Your task to perform on an android device: move a message to another label in the gmail app Image 0: 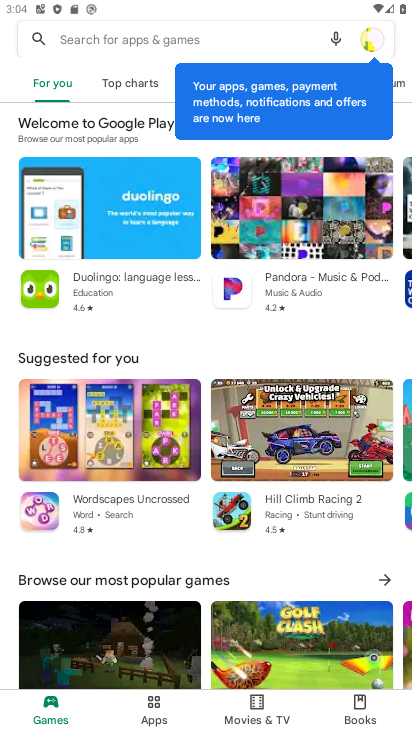
Step 0: press home button
Your task to perform on an android device: move a message to another label in the gmail app Image 1: 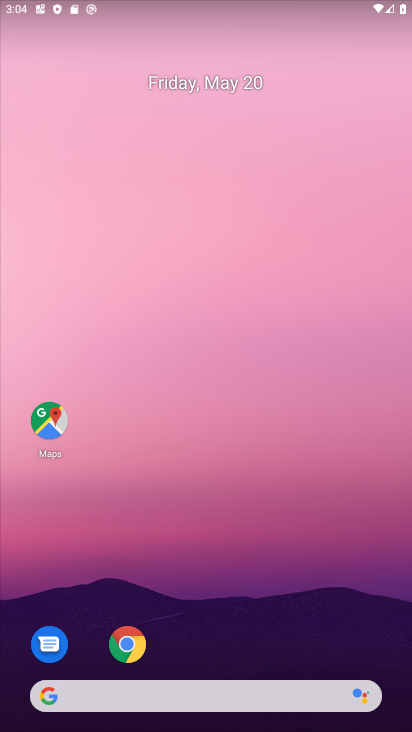
Step 1: drag from (335, 567) to (199, 66)
Your task to perform on an android device: move a message to another label in the gmail app Image 2: 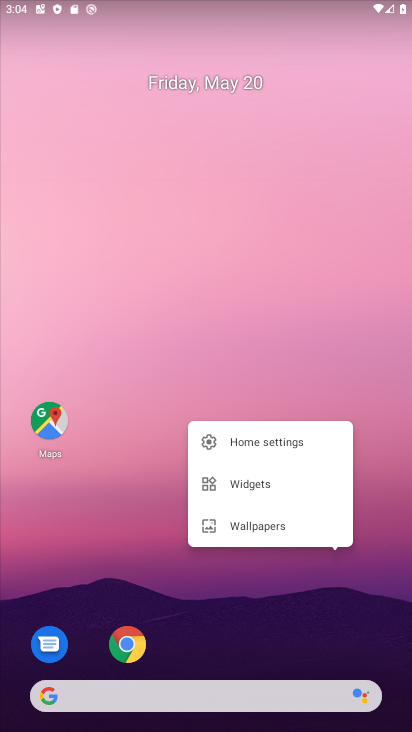
Step 2: click (94, 421)
Your task to perform on an android device: move a message to another label in the gmail app Image 3: 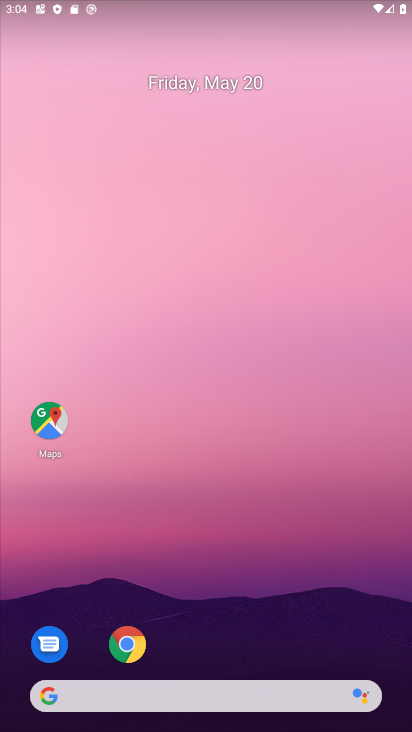
Step 3: drag from (191, 582) to (219, 15)
Your task to perform on an android device: move a message to another label in the gmail app Image 4: 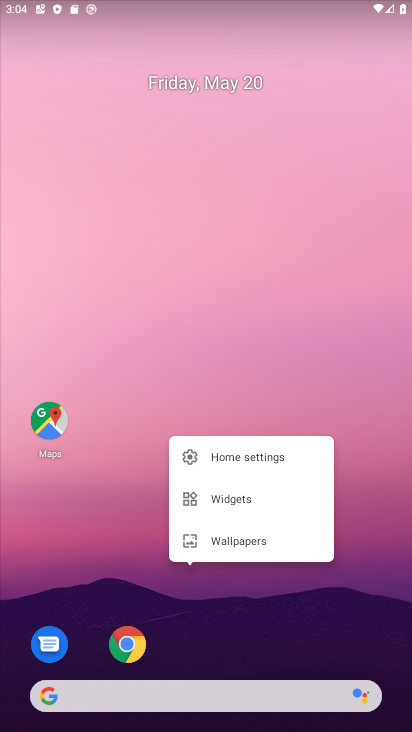
Step 4: click (222, 583)
Your task to perform on an android device: move a message to another label in the gmail app Image 5: 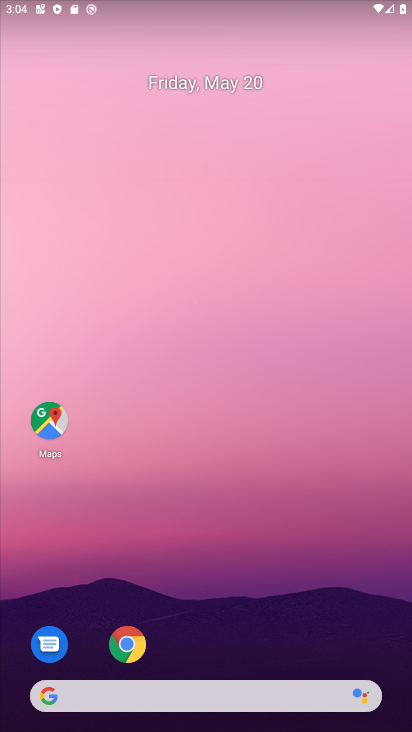
Step 5: drag from (222, 583) to (119, 57)
Your task to perform on an android device: move a message to another label in the gmail app Image 6: 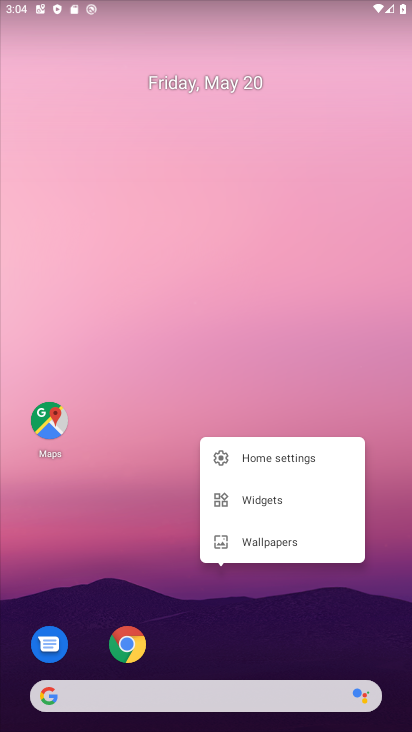
Step 6: click (142, 548)
Your task to perform on an android device: move a message to another label in the gmail app Image 7: 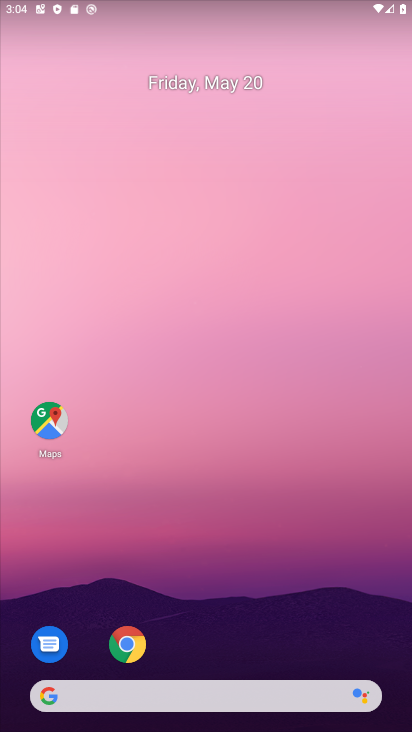
Step 7: drag from (142, 548) to (150, 160)
Your task to perform on an android device: move a message to another label in the gmail app Image 8: 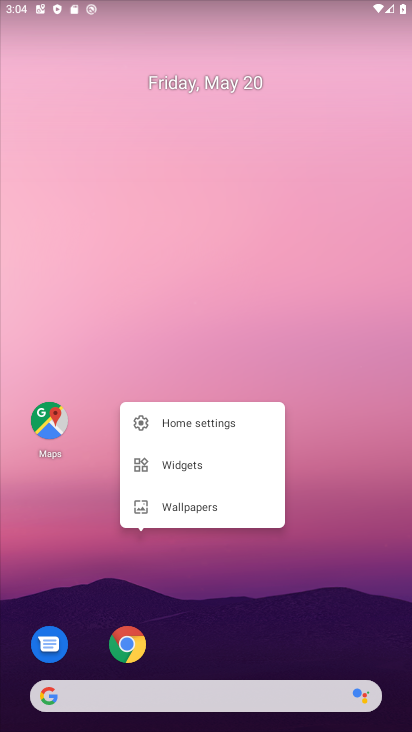
Step 8: click (272, 599)
Your task to perform on an android device: move a message to another label in the gmail app Image 9: 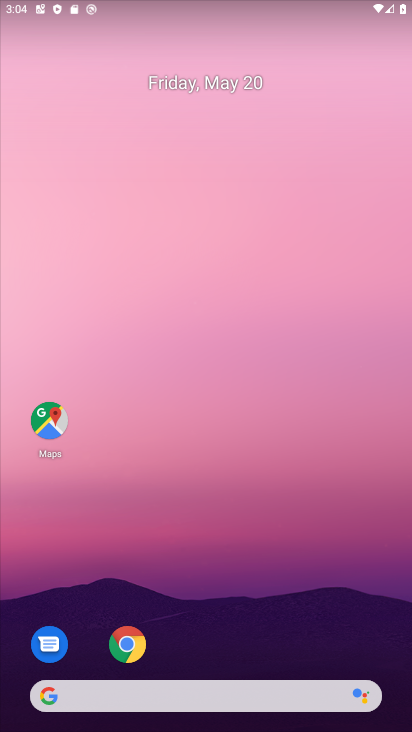
Step 9: drag from (272, 599) to (252, 271)
Your task to perform on an android device: move a message to another label in the gmail app Image 10: 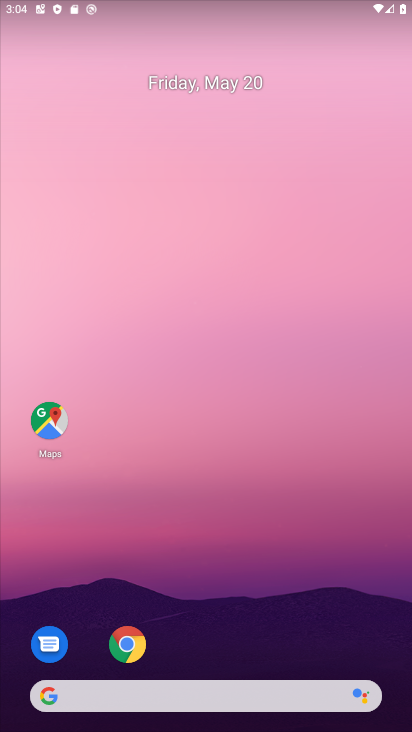
Step 10: drag from (243, 542) to (241, 218)
Your task to perform on an android device: move a message to another label in the gmail app Image 11: 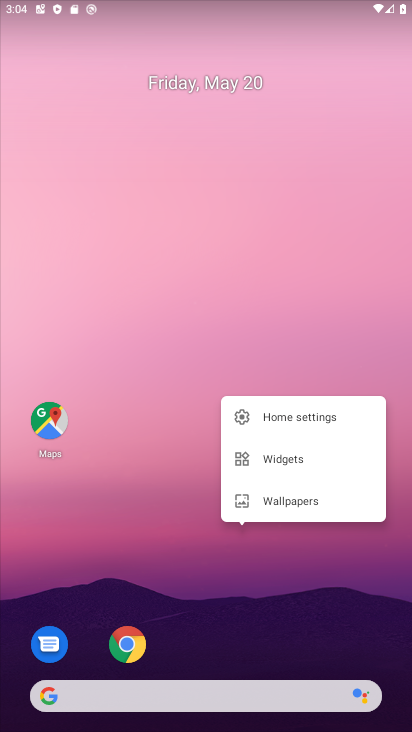
Step 11: click (171, 478)
Your task to perform on an android device: move a message to another label in the gmail app Image 12: 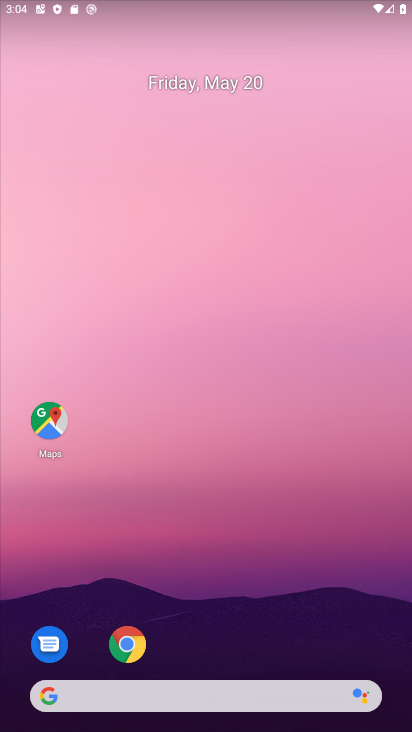
Step 12: drag from (204, 578) to (204, 219)
Your task to perform on an android device: move a message to another label in the gmail app Image 13: 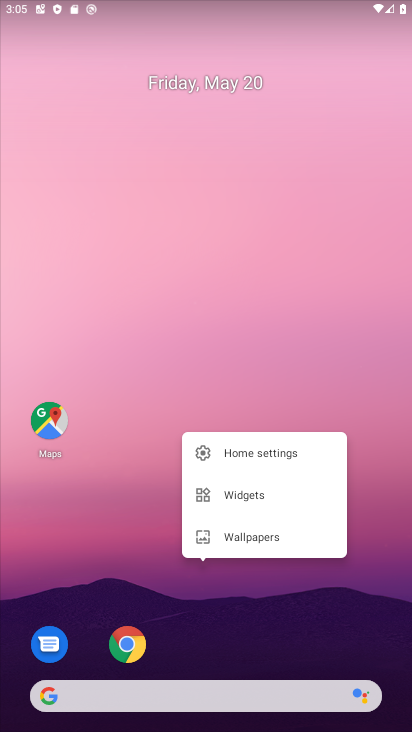
Step 13: click (119, 504)
Your task to perform on an android device: move a message to another label in the gmail app Image 14: 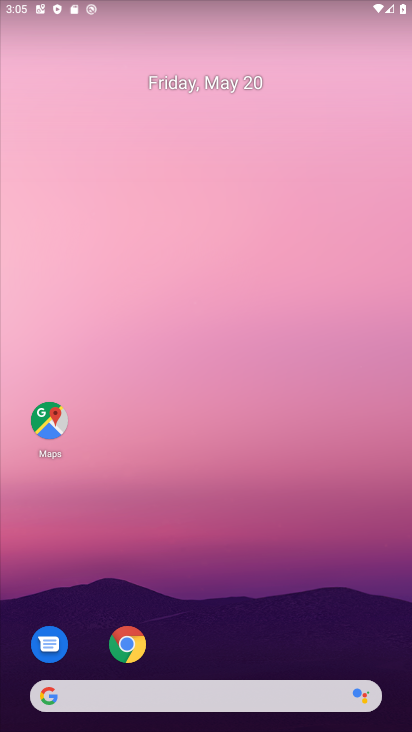
Step 14: drag from (230, 604) to (233, 326)
Your task to perform on an android device: move a message to another label in the gmail app Image 15: 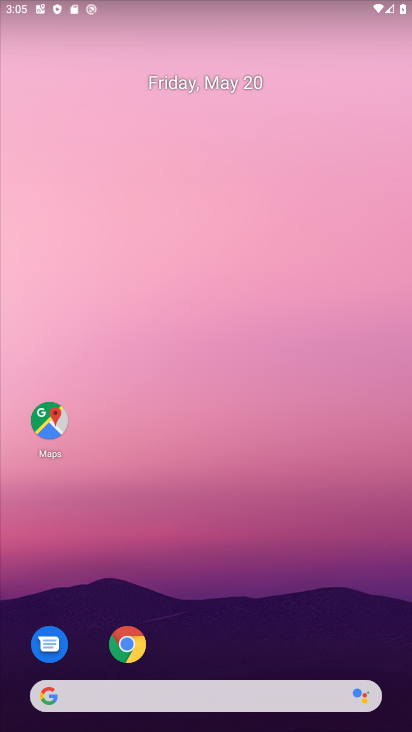
Step 15: drag from (267, 607) to (228, 123)
Your task to perform on an android device: move a message to another label in the gmail app Image 16: 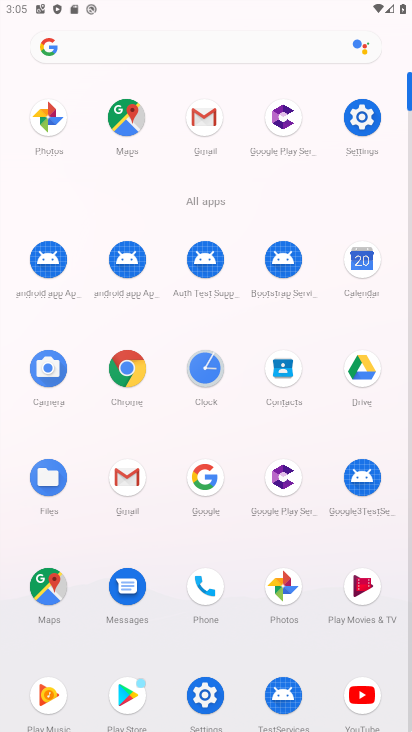
Step 16: click (223, 123)
Your task to perform on an android device: move a message to another label in the gmail app Image 17: 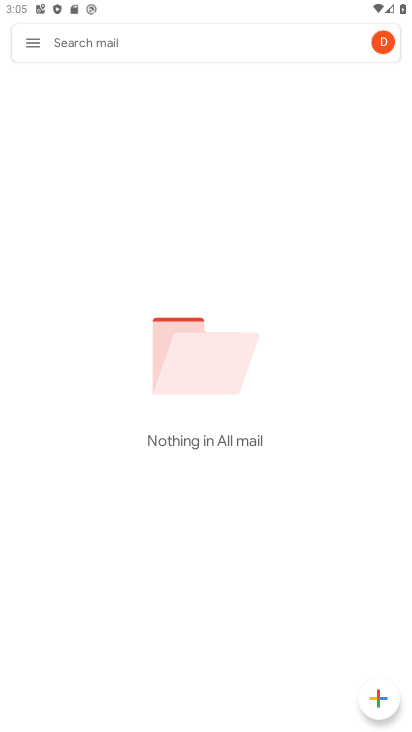
Step 17: task complete